Your task to perform on an android device: turn vacation reply on in the gmail app Image 0: 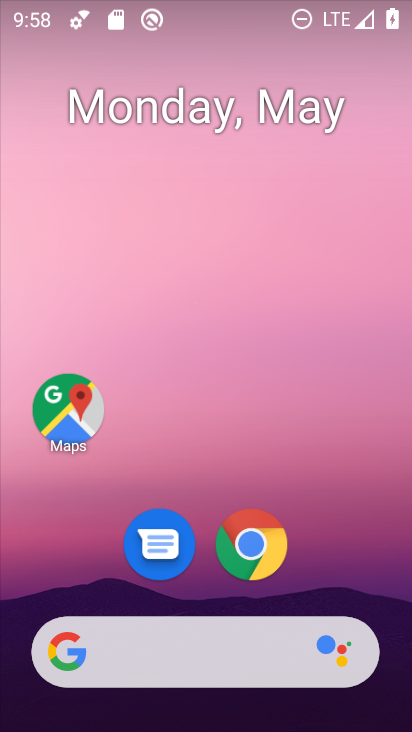
Step 0: drag from (334, 591) to (337, 191)
Your task to perform on an android device: turn vacation reply on in the gmail app Image 1: 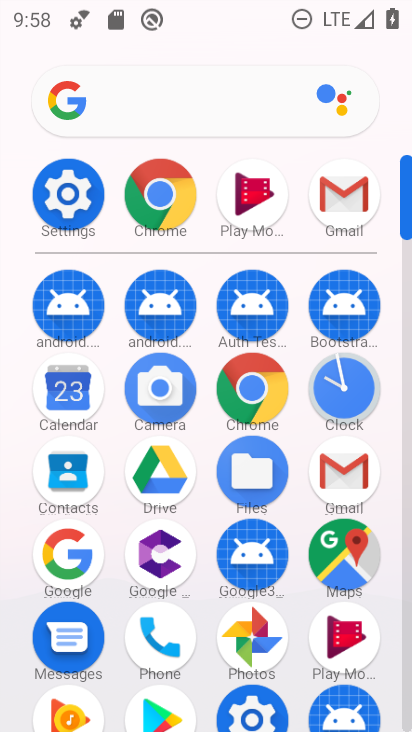
Step 1: click (365, 497)
Your task to perform on an android device: turn vacation reply on in the gmail app Image 2: 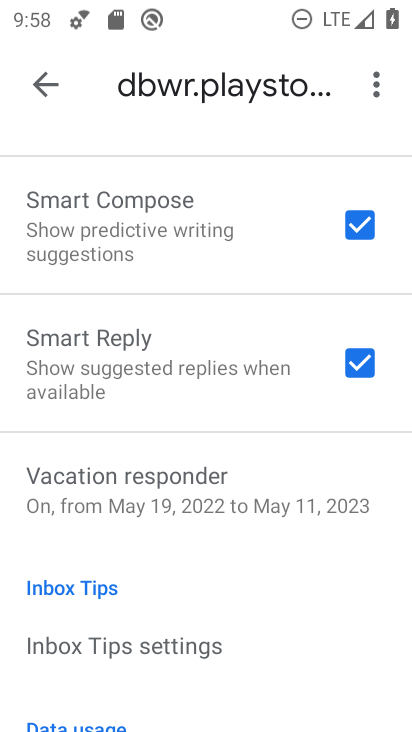
Step 2: click (309, 513)
Your task to perform on an android device: turn vacation reply on in the gmail app Image 3: 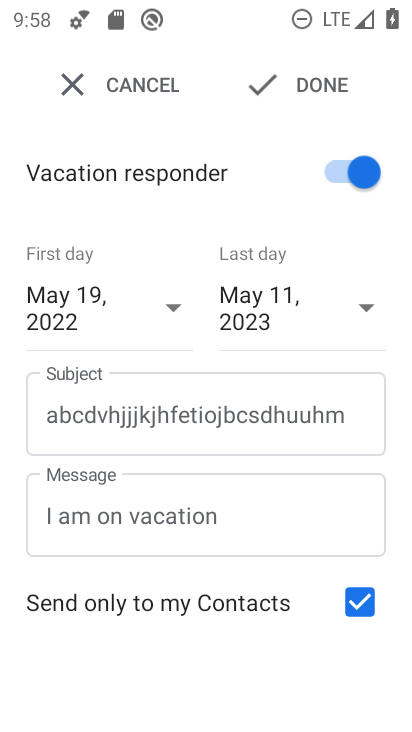
Step 3: task complete